Your task to perform on an android device: Open Yahoo.com Image 0: 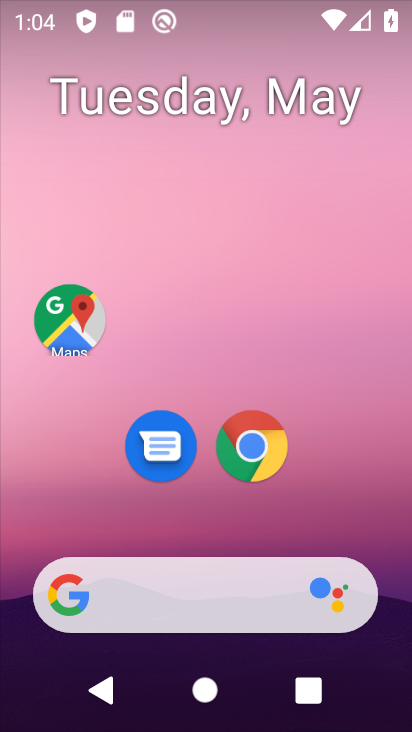
Step 0: drag from (203, 554) to (162, 71)
Your task to perform on an android device: Open Yahoo.com Image 1: 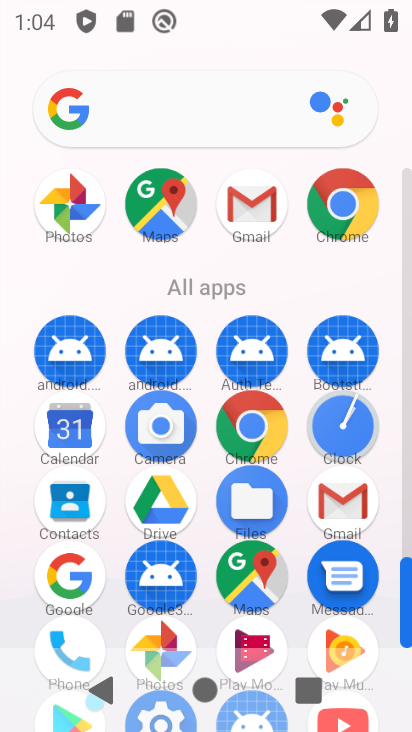
Step 1: click (265, 426)
Your task to perform on an android device: Open Yahoo.com Image 2: 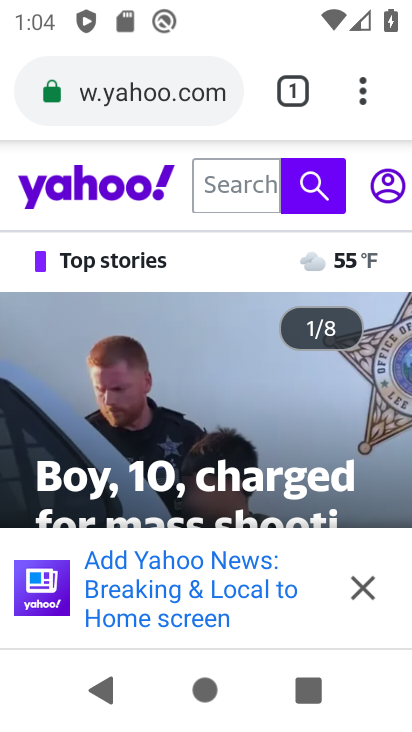
Step 2: task complete